Your task to perform on an android device: open the mobile data screen to see how much data has been used Image 0: 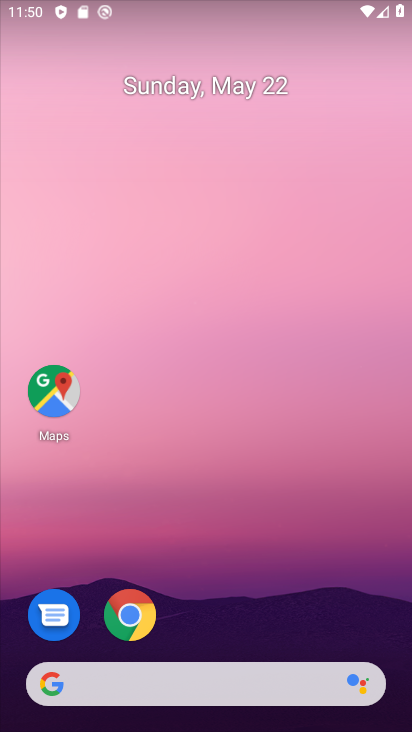
Step 0: drag from (208, 528) to (314, 61)
Your task to perform on an android device: open the mobile data screen to see how much data has been used Image 1: 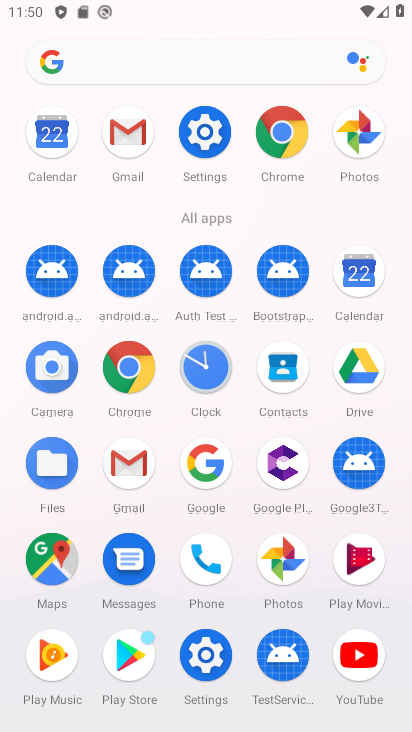
Step 1: click (203, 672)
Your task to perform on an android device: open the mobile data screen to see how much data has been used Image 2: 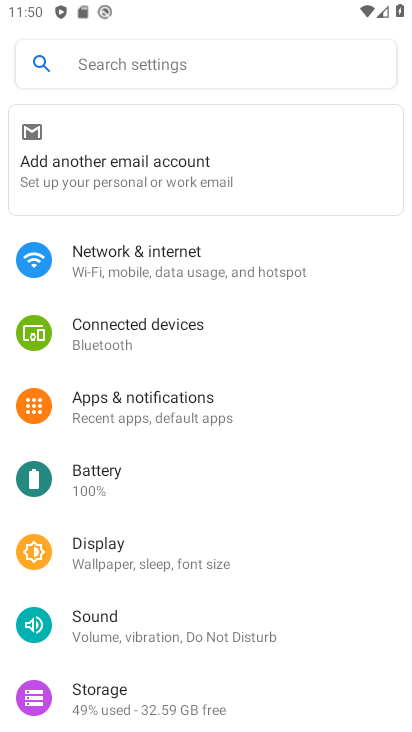
Step 2: click (181, 254)
Your task to perform on an android device: open the mobile data screen to see how much data has been used Image 3: 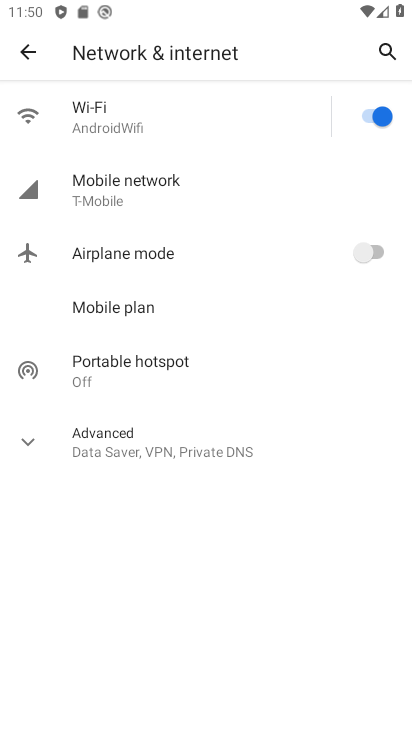
Step 3: click (145, 191)
Your task to perform on an android device: open the mobile data screen to see how much data has been used Image 4: 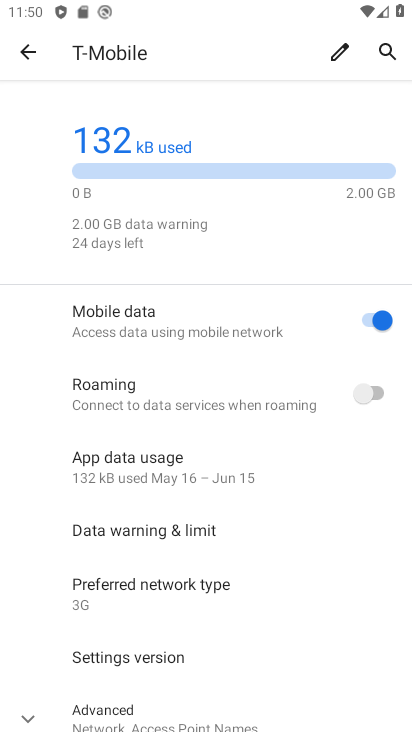
Step 4: click (122, 468)
Your task to perform on an android device: open the mobile data screen to see how much data has been used Image 5: 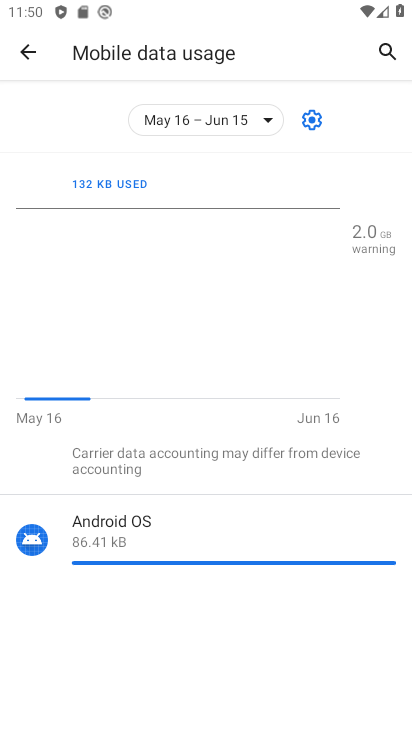
Step 5: task complete